Your task to perform on an android device: Go to eBay Image 0: 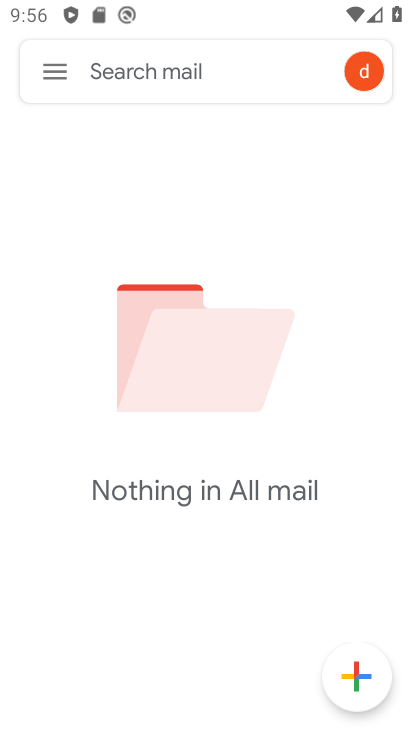
Step 0: press home button
Your task to perform on an android device: Go to eBay Image 1: 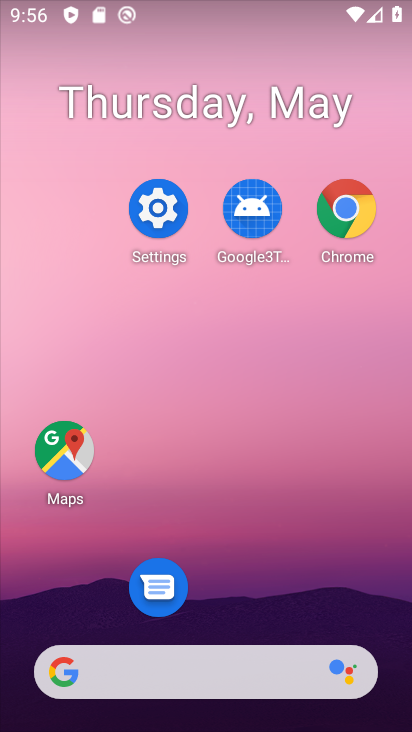
Step 1: click (342, 257)
Your task to perform on an android device: Go to eBay Image 2: 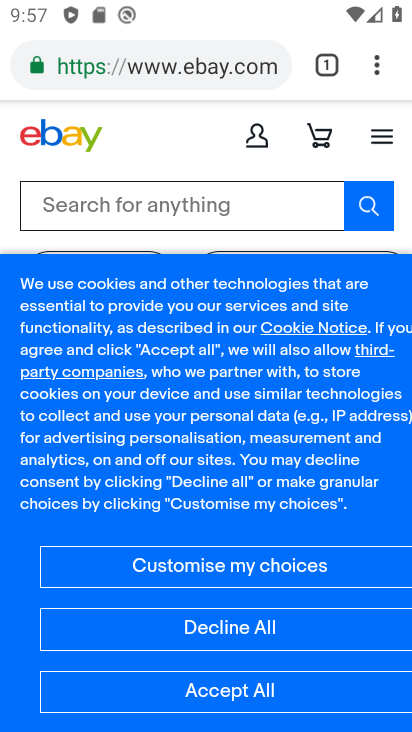
Step 2: task complete